Your task to perform on an android device: Do I have any events this weekend? Image 0: 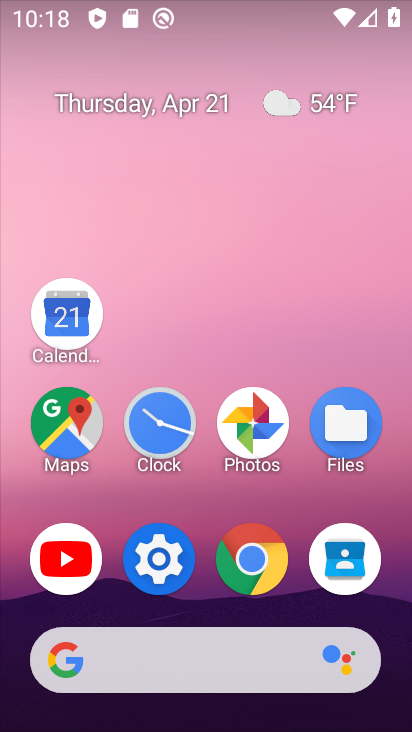
Step 0: click (57, 328)
Your task to perform on an android device: Do I have any events this weekend? Image 1: 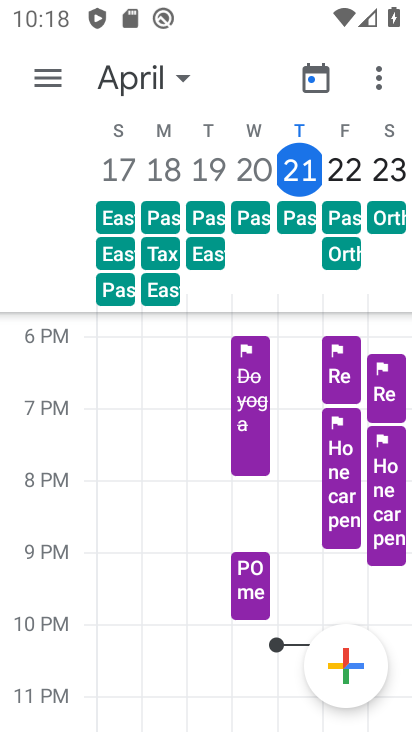
Step 1: click (388, 169)
Your task to perform on an android device: Do I have any events this weekend? Image 2: 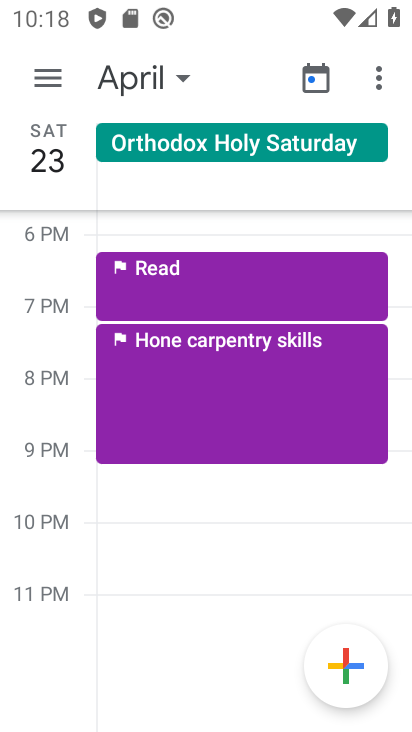
Step 2: task complete